Your task to perform on an android device: Show me the alarms in the clock app Image 0: 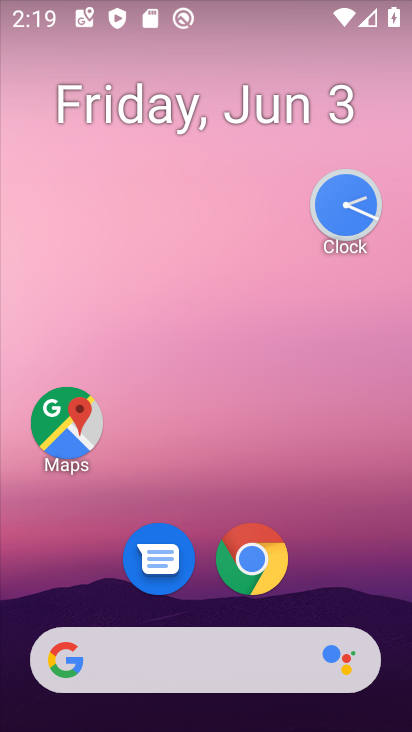
Step 0: drag from (357, 543) to (316, 277)
Your task to perform on an android device: Show me the alarms in the clock app Image 1: 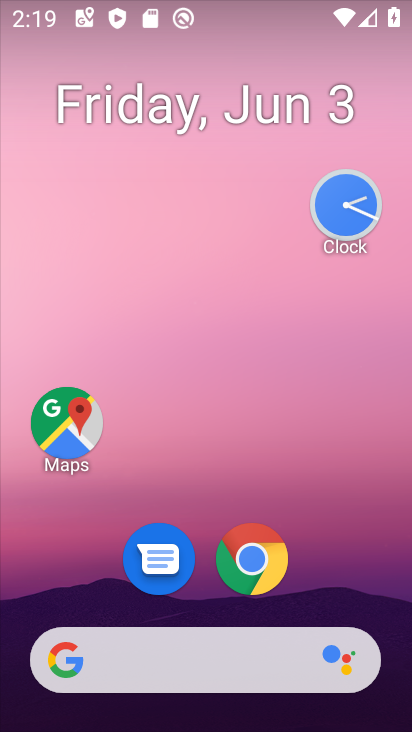
Step 1: drag from (349, 602) to (319, 309)
Your task to perform on an android device: Show me the alarms in the clock app Image 2: 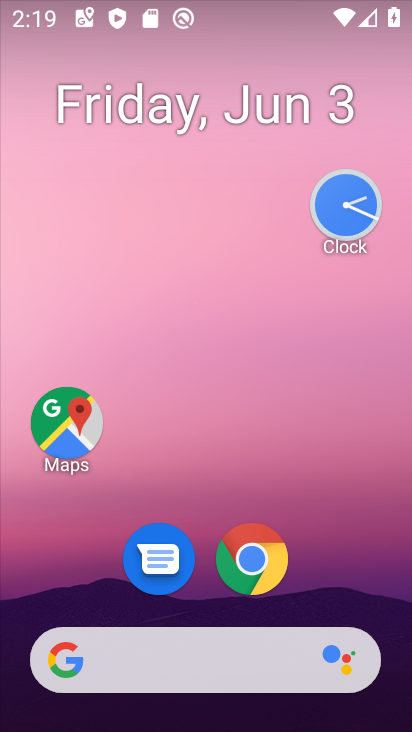
Step 2: drag from (336, 552) to (319, 212)
Your task to perform on an android device: Show me the alarms in the clock app Image 3: 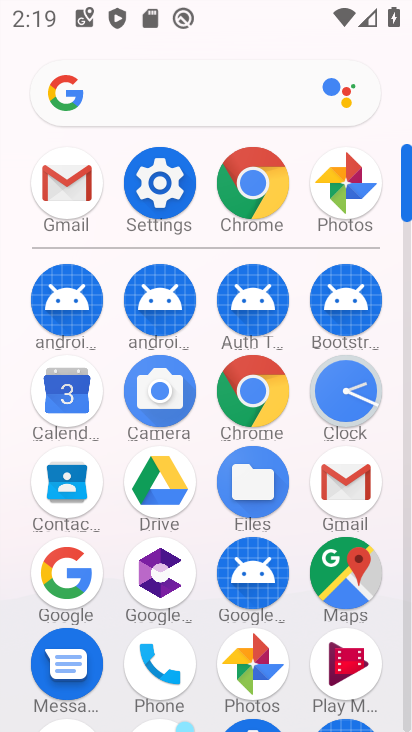
Step 3: click (337, 382)
Your task to perform on an android device: Show me the alarms in the clock app Image 4: 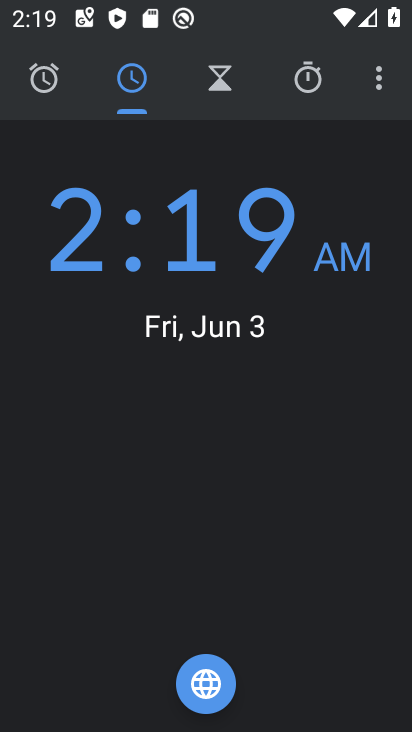
Step 4: click (71, 98)
Your task to perform on an android device: Show me the alarms in the clock app Image 5: 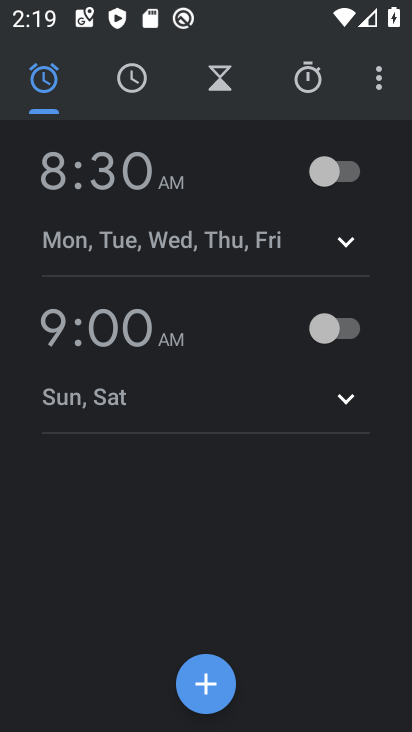
Step 5: task complete